Your task to perform on an android device: Show me productivity apps on the Play Store Image 0: 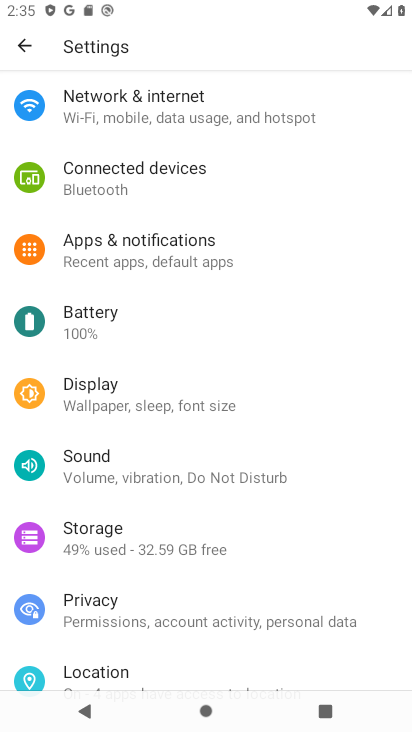
Step 0: press home button
Your task to perform on an android device: Show me productivity apps on the Play Store Image 1: 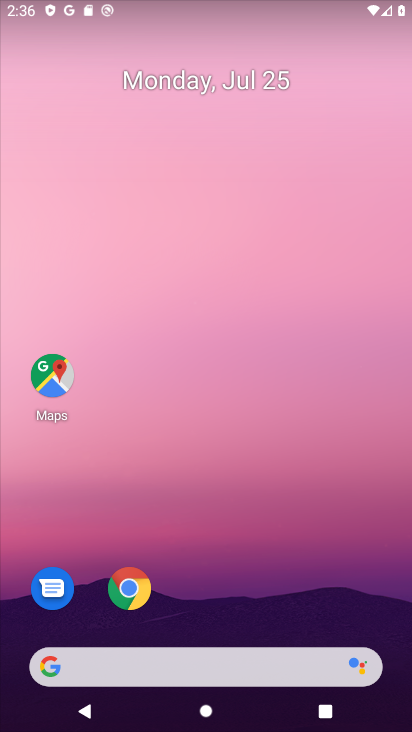
Step 1: drag from (223, 613) to (280, 14)
Your task to perform on an android device: Show me productivity apps on the Play Store Image 2: 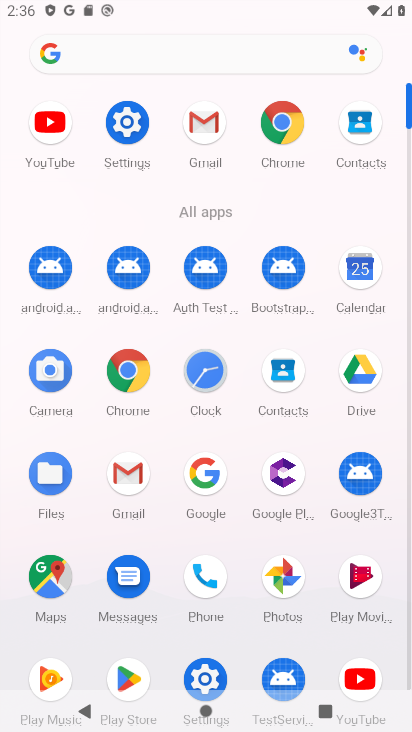
Step 2: click (123, 668)
Your task to perform on an android device: Show me productivity apps on the Play Store Image 3: 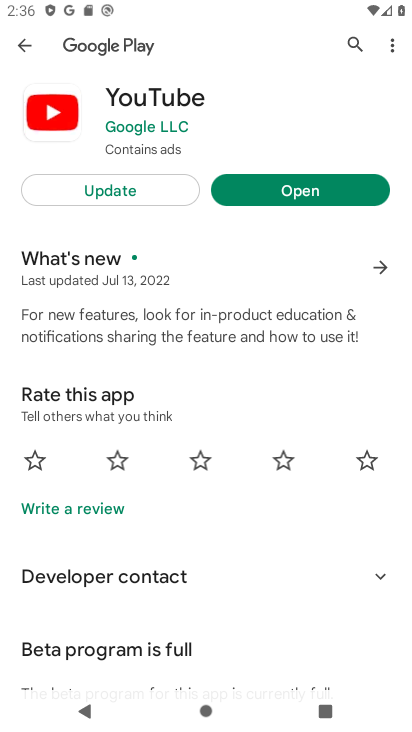
Step 3: click (22, 40)
Your task to perform on an android device: Show me productivity apps on the Play Store Image 4: 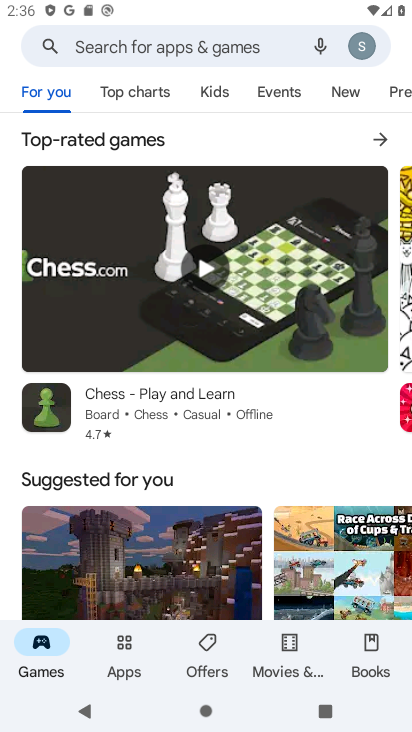
Step 4: click (117, 648)
Your task to perform on an android device: Show me productivity apps on the Play Store Image 5: 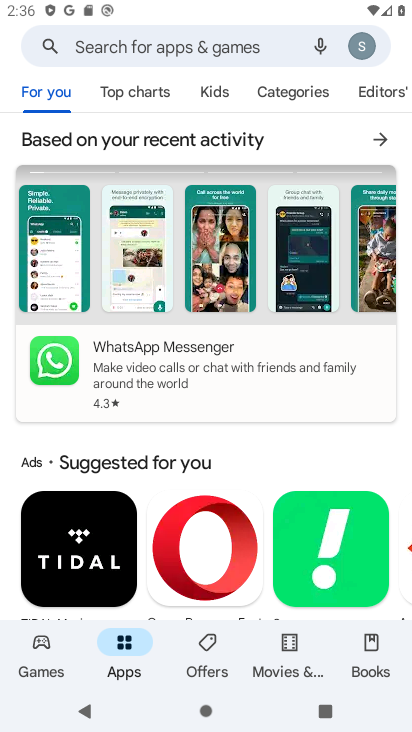
Step 5: click (292, 93)
Your task to perform on an android device: Show me productivity apps on the Play Store Image 6: 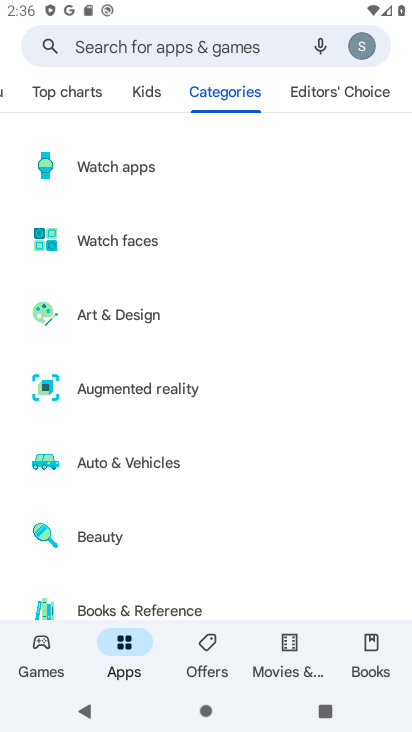
Step 6: drag from (166, 587) to (205, 0)
Your task to perform on an android device: Show me productivity apps on the Play Store Image 7: 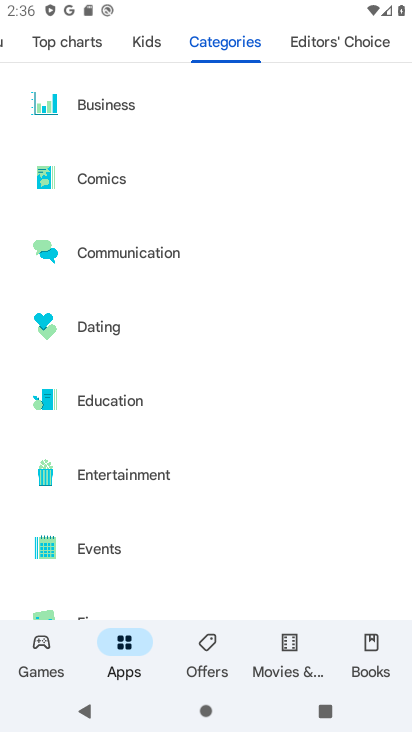
Step 7: drag from (156, 576) to (194, 104)
Your task to perform on an android device: Show me productivity apps on the Play Store Image 8: 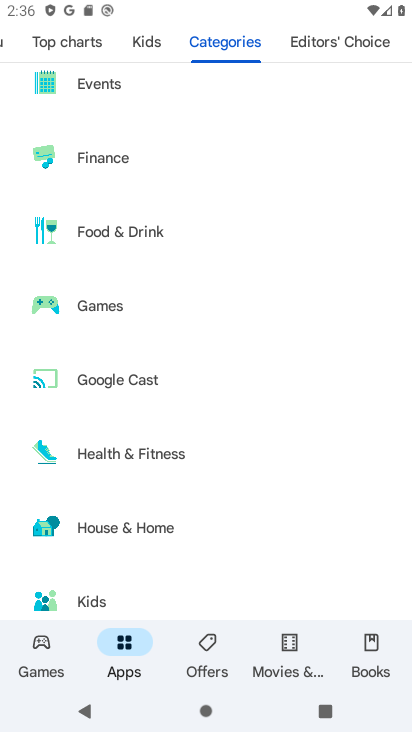
Step 8: drag from (153, 588) to (163, 28)
Your task to perform on an android device: Show me productivity apps on the Play Store Image 9: 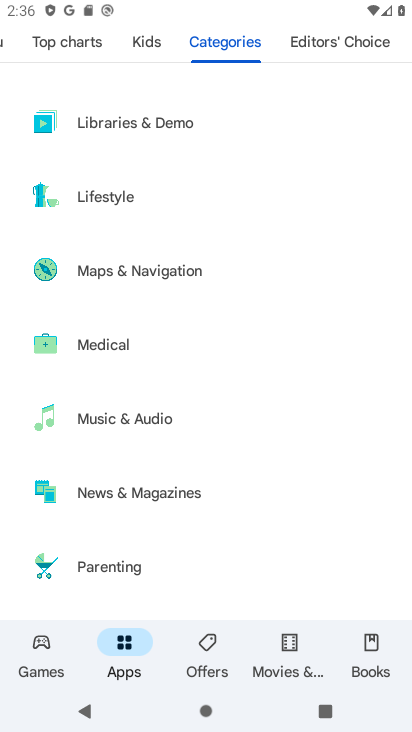
Step 9: drag from (153, 586) to (179, 104)
Your task to perform on an android device: Show me productivity apps on the Play Store Image 10: 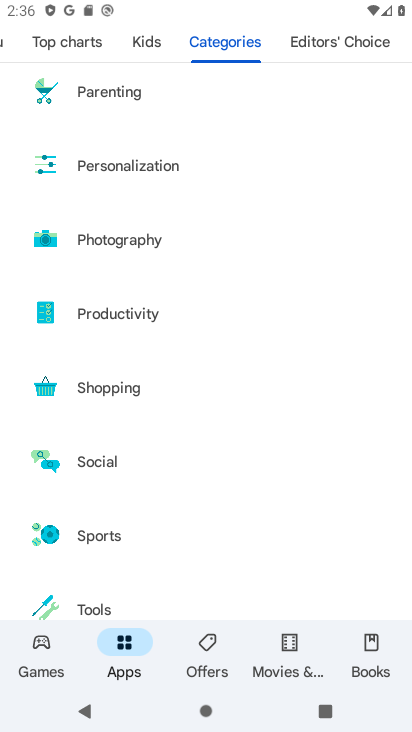
Step 10: click (170, 310)
Your task to perform on an android device: Show me productivity apps on the Play Store Image 11: 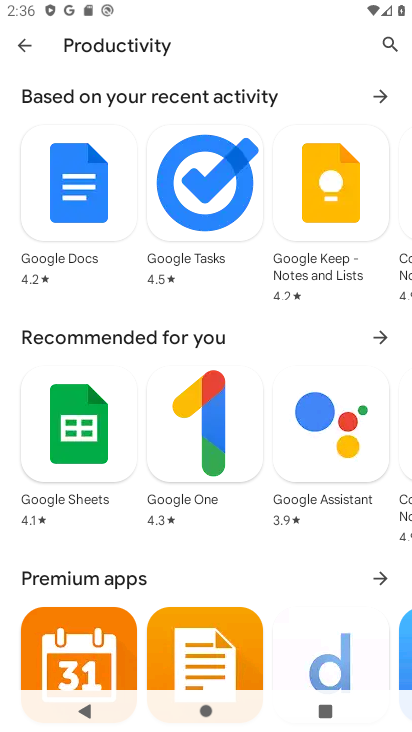
Step 11: task complete